Your task to perform on an android device: turn smart compose on in the gmail app Image 0: 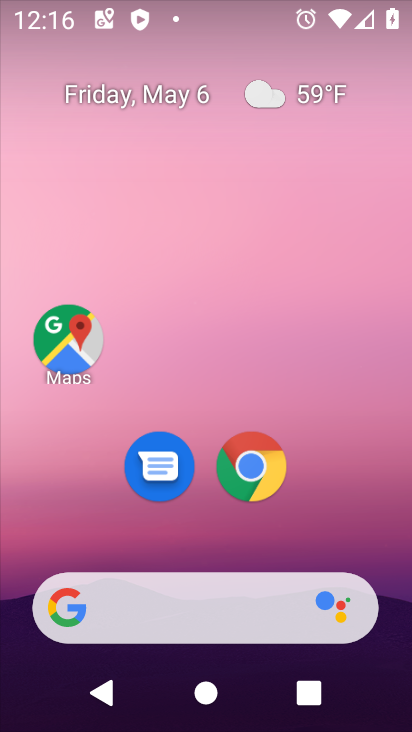
Step 0: drag from (193, 511) to (253, 62)
Your task to perform on an android device: turn smart compose on in the gmail app Image 1: 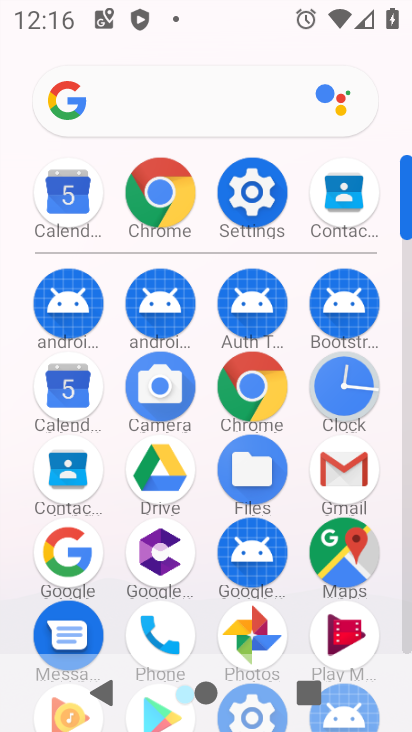
Step 1: click (332, 462)
Your task to perform on an android device: turn smart compose on in the gmail app Image 2: 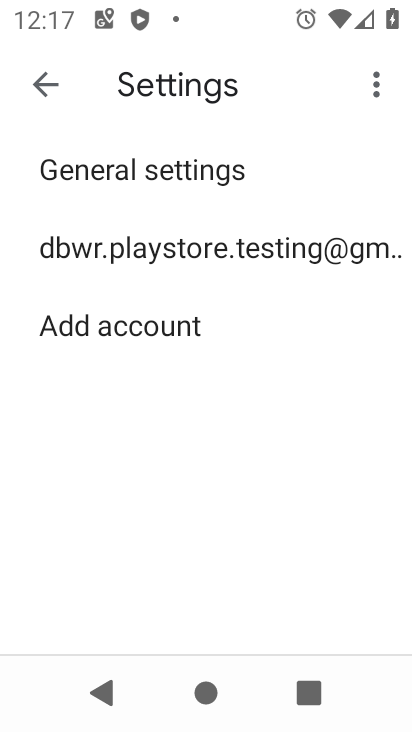
Step 2: click (246, 248)
Your task to perform on an android device: turn smart compose on in the gmail app Image 3: 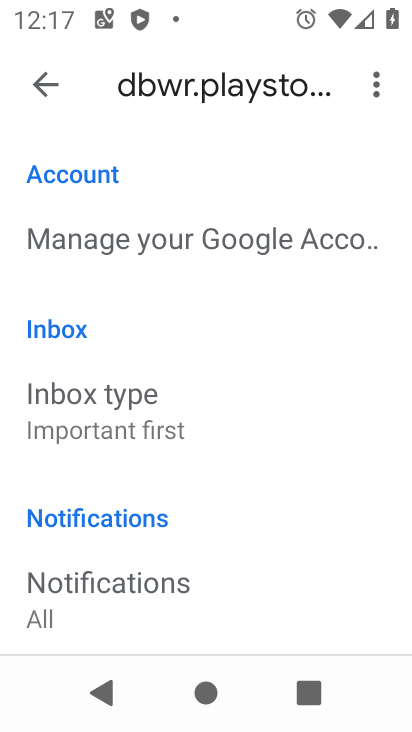
Step 3: task complete